Your task to perform on an android device: Open Chrome and go to the settings page Image 0: 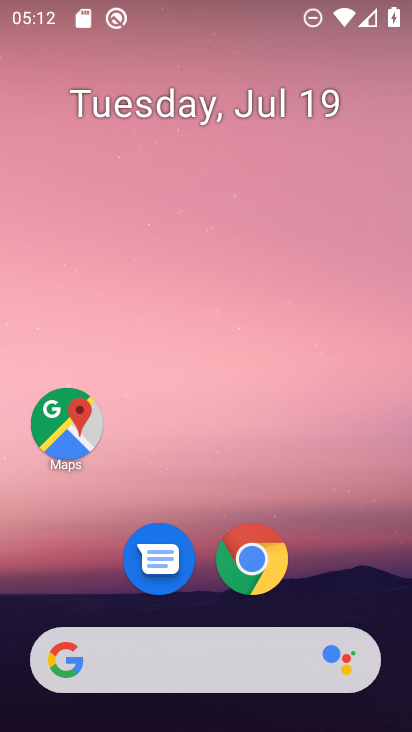
Step 0: drag from (213, 581) to (240, 0)
Your task to perform on an android device: Open Chrome and go to the settings page Image 1: 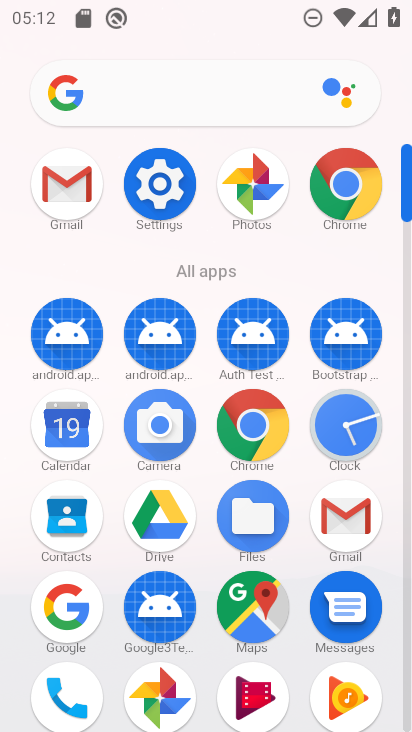
Step 1: click (72, 439)
Your task to perform on an android device: Open Chrome and go to the settings page Image 2: 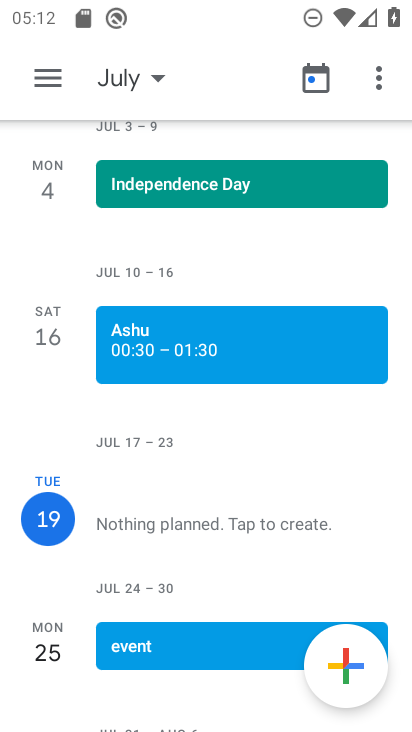
Step 2: press back button
Your task to perform on an android device: Open Chrome and go to the settings page Image 3: 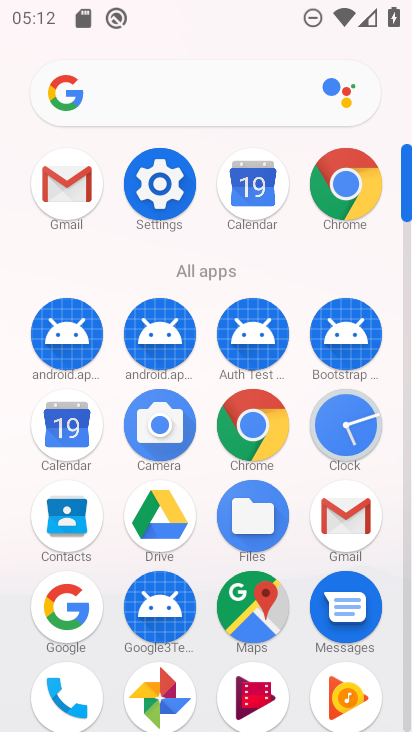
Step 3: click (345, 191)
Your task to perform on an android device: Open Chrome and go to the settings page Image 4: 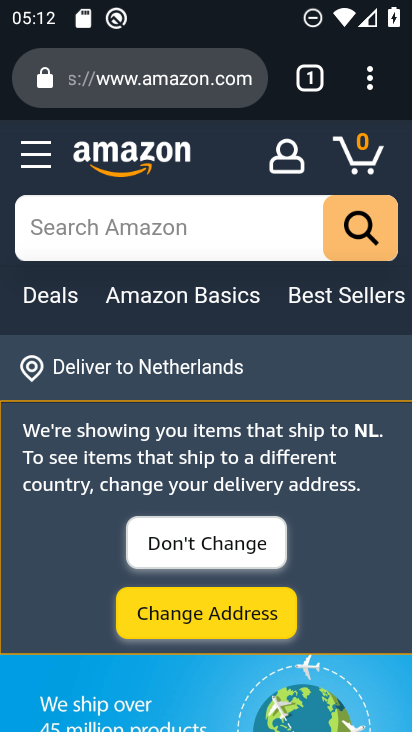
Step 4: task complete